Your task to perform on an android device: turn on translation in the chrome app Image 0: 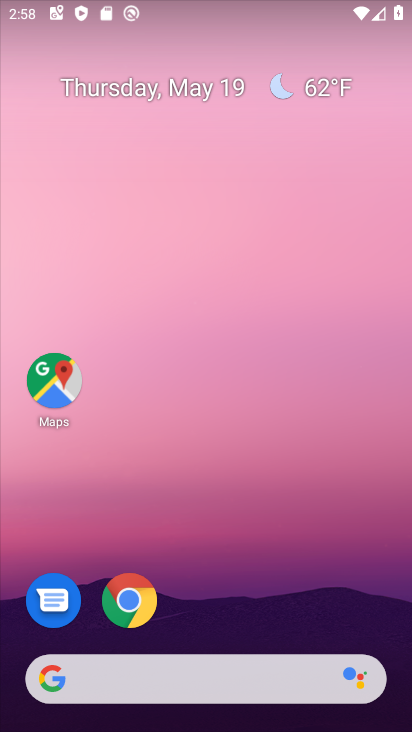
Step 0: click (121, 602)
Your task to perform on an android device: turn on translation in the chrome app Image 1: 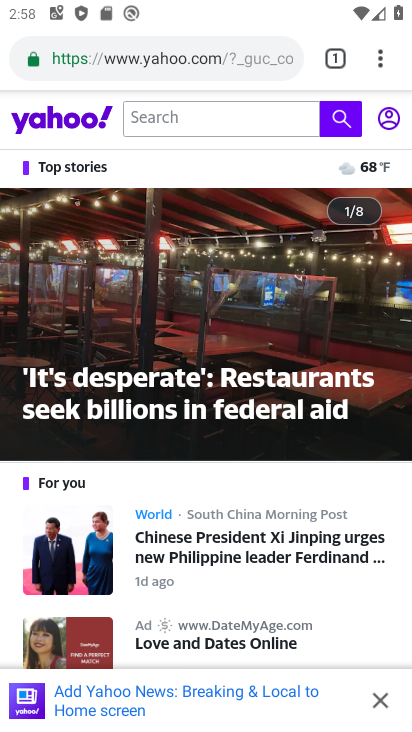
Step 1: click (372, 59)
Your task to perform on an android device: turn on translation in the chrome app Image 2: 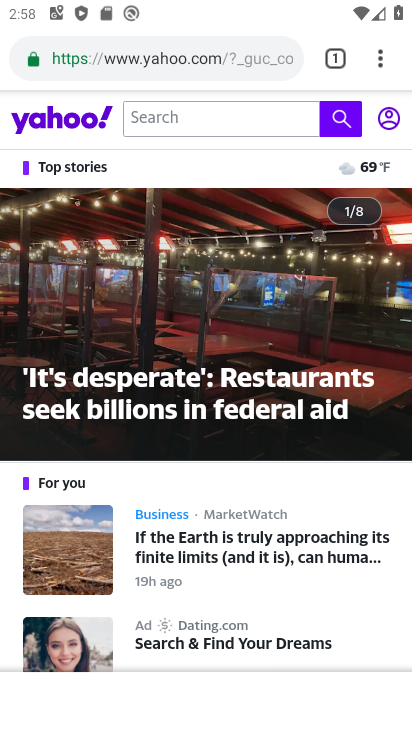
Step 2: click (379, 61)
Your task to perform on an android device: turn on translation in the chrome app Image 3: 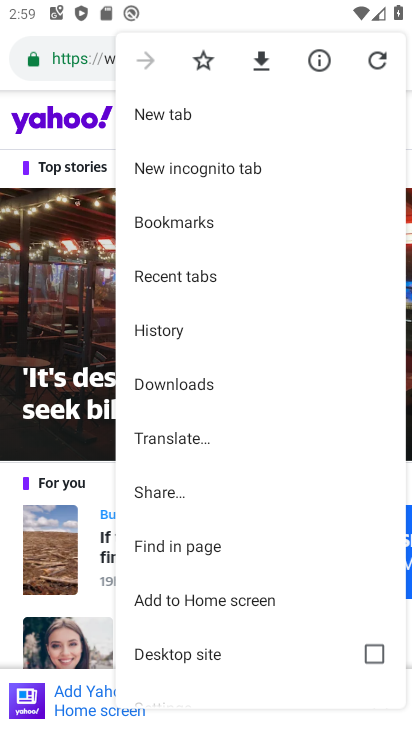
Step 3: drag from (163, 664) to (270, 202)
Your task to perform on an android device: turn on translation in the chrome app Image 4: 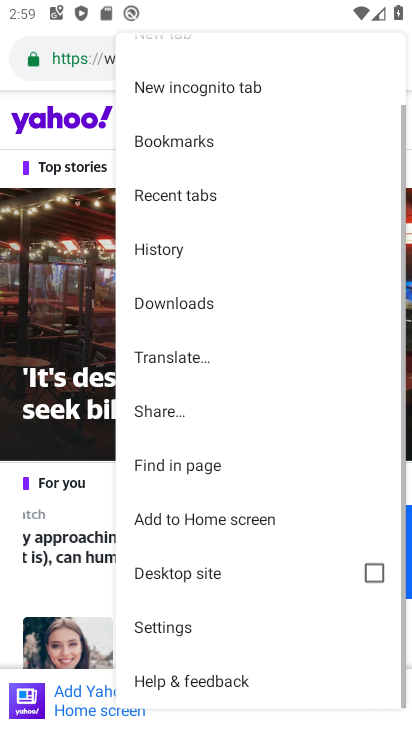
Step 4: click (170, 624)
Your task to perform on an android device: turn on translation in the chrome app Image 5: 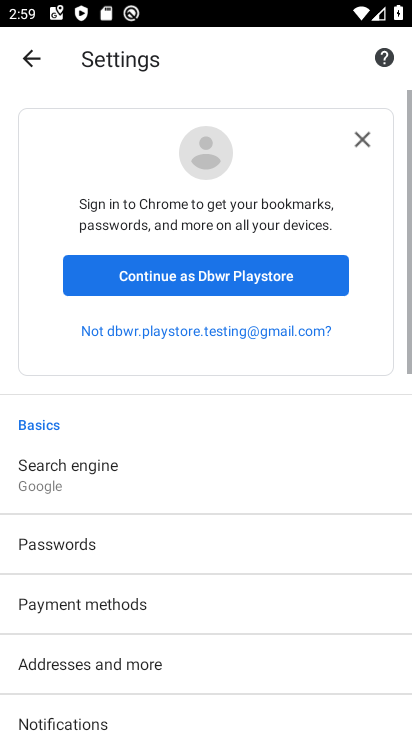
Step 5: drag from (89, 695) to (247, 203)
Your task to perform on an android device: turn on translation in the chrome app Image 6: 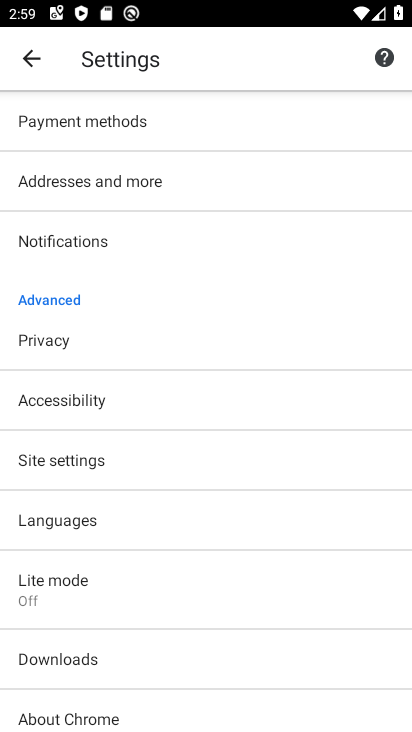
Step 6: click (124, 515)
Your task to perform on an android device: turn on translation in the chrome app Image 7: 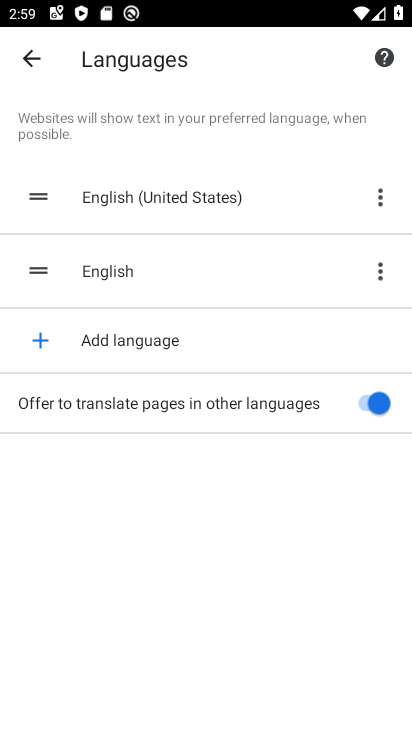
Step 7: task complete